Your task to perform on an android device: Go to location settings Image 0: 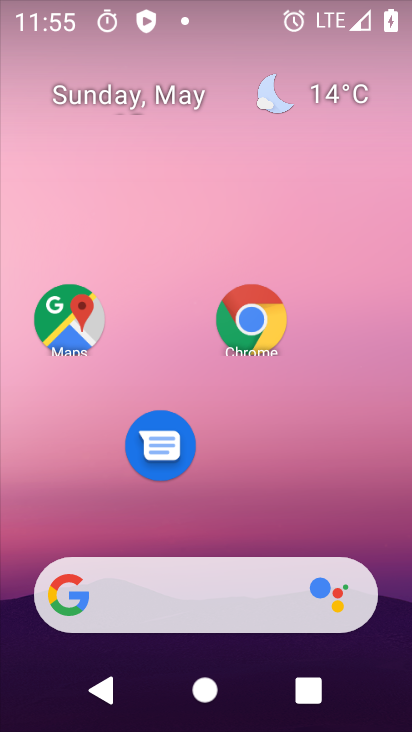
Step 0: press home button
Your task to perform on an android device: Go to location settings Image 1: 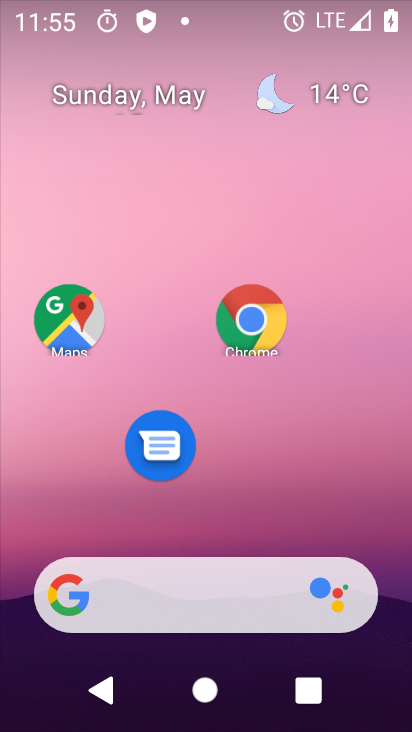
Step 1: drag from (162, 595) to (333, 102)
Your task to perform on an android device: Go to location settings Image 2: 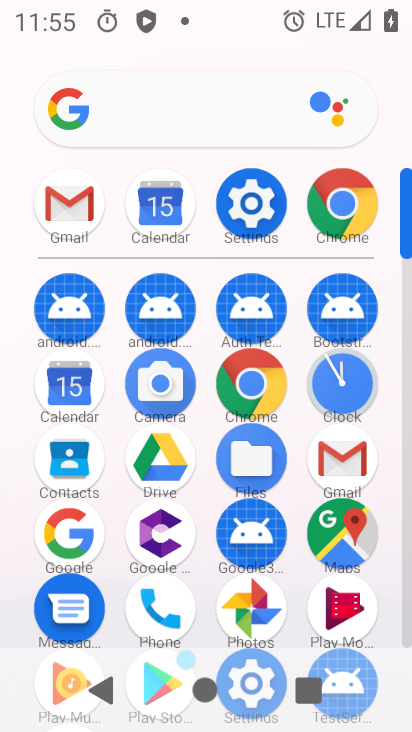
Step 2: click (254, 217)
Your task to perform on an android device: Go to location settings Image 3: 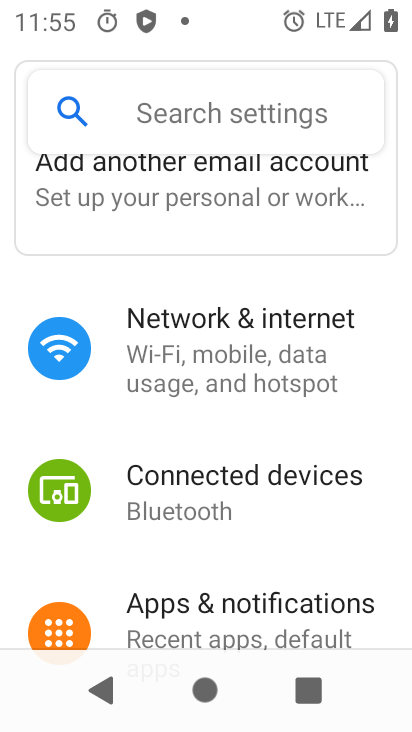
Step 3: drag from (217, 590) to (299, 244)
Your task to perform on an android device: Go to location settings Image 4: 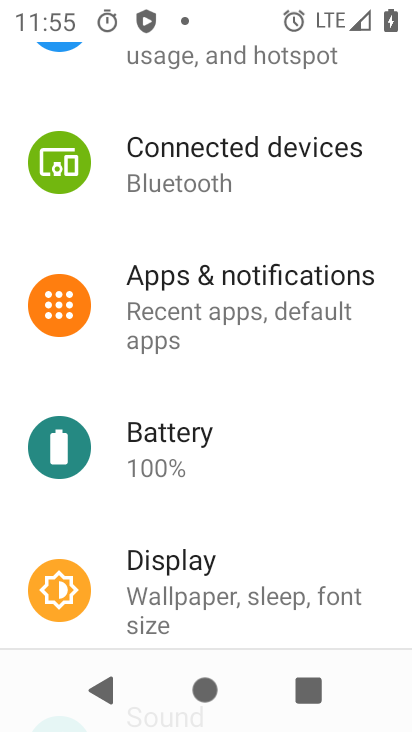
Step 4: drag from (196, 625) to (338, 137)
Your task to perform on an android device: Go to location settings Image 5: 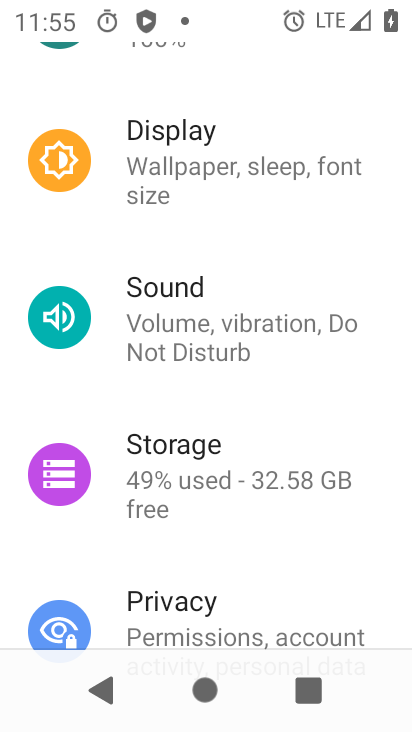
Step 5: drag from (191, 574) to (358, 79)
Your task to perform on an android device: Go to location settings Image 6: 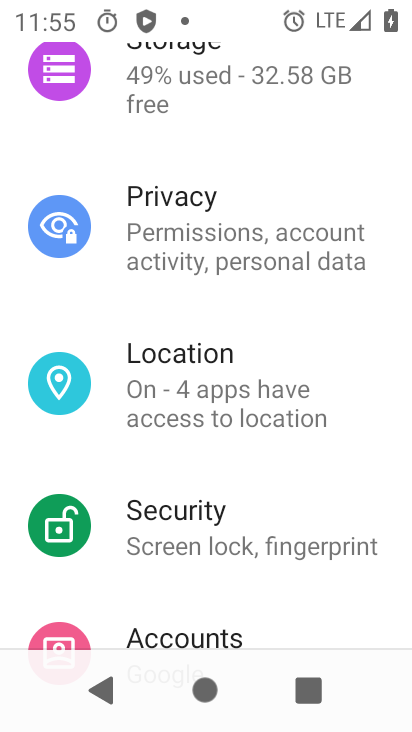
Step 6: click (216, 402)
Your task to perform on an android device: Go to location settings Image 7: 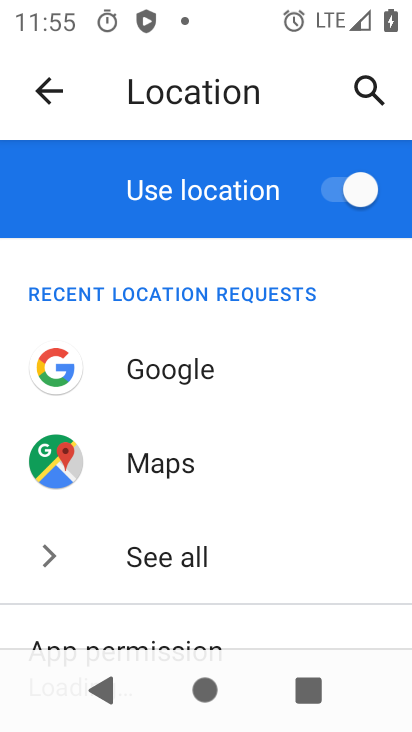
Step 7: task complete